Your task to perform on an android device: open app "The Home Depot" Image 0: 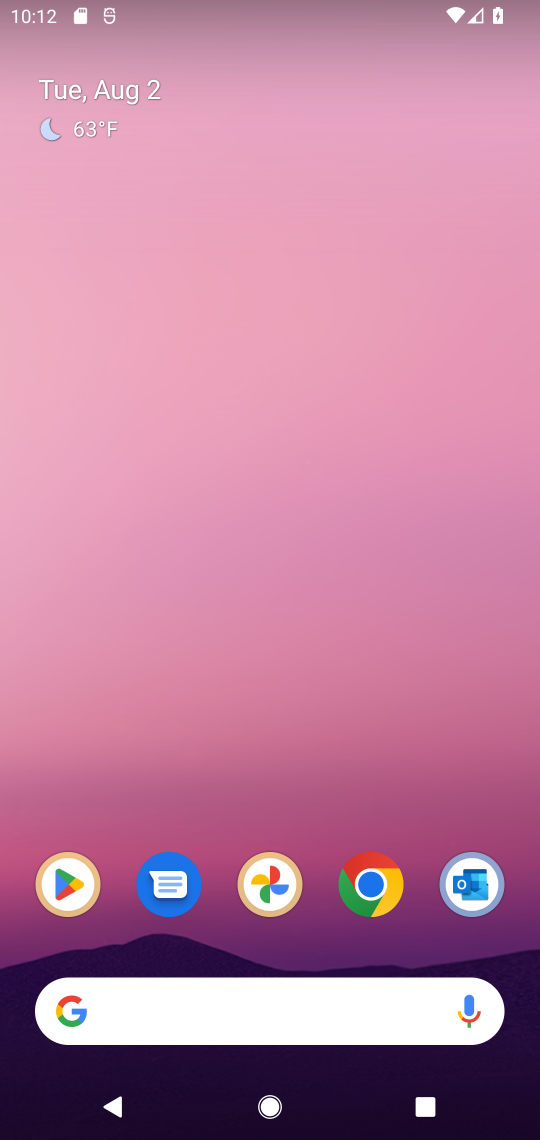
Step 0: click (79, 889)
Your task to perform on an android device: open app "The Home Depot" Image 1: 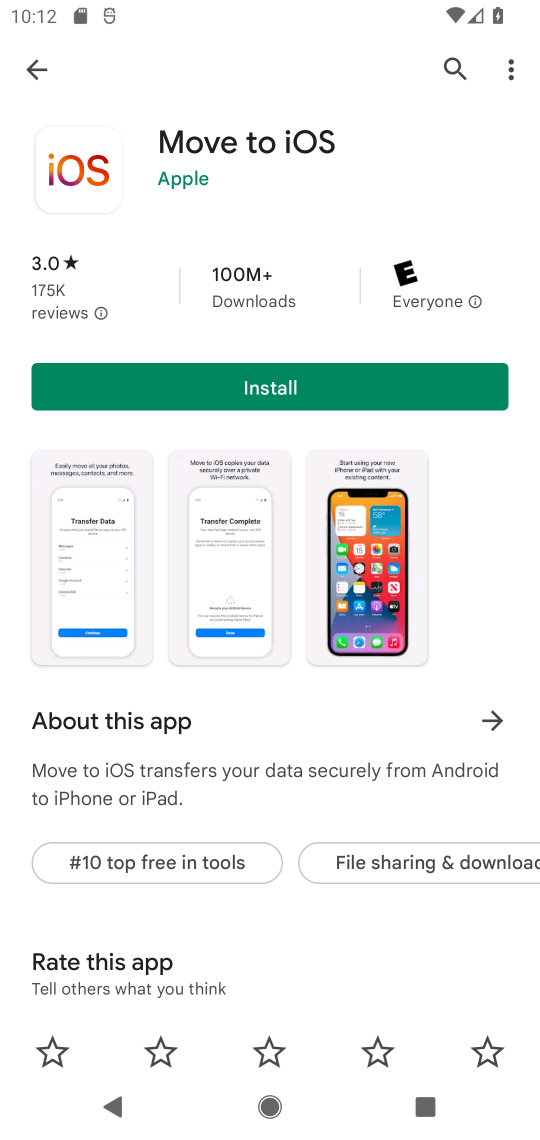
Step 1: click (30, 76)
Your task to perform on an android device: open app "The Home Depot" Image 2: 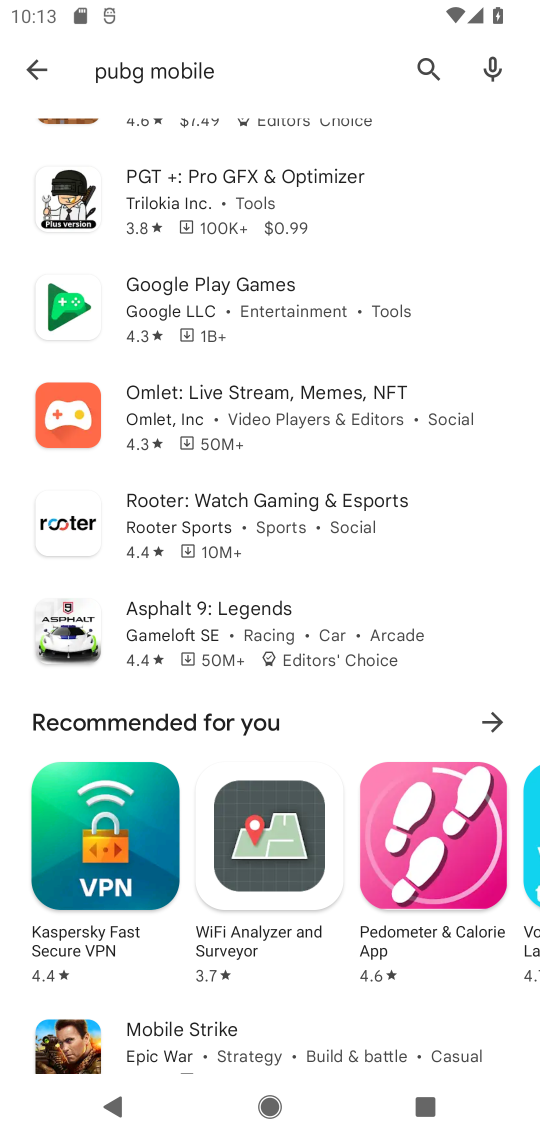
Step 2: click (172, 71)
Your task to perform on an android device: open app "The Home Depot" Image 3: 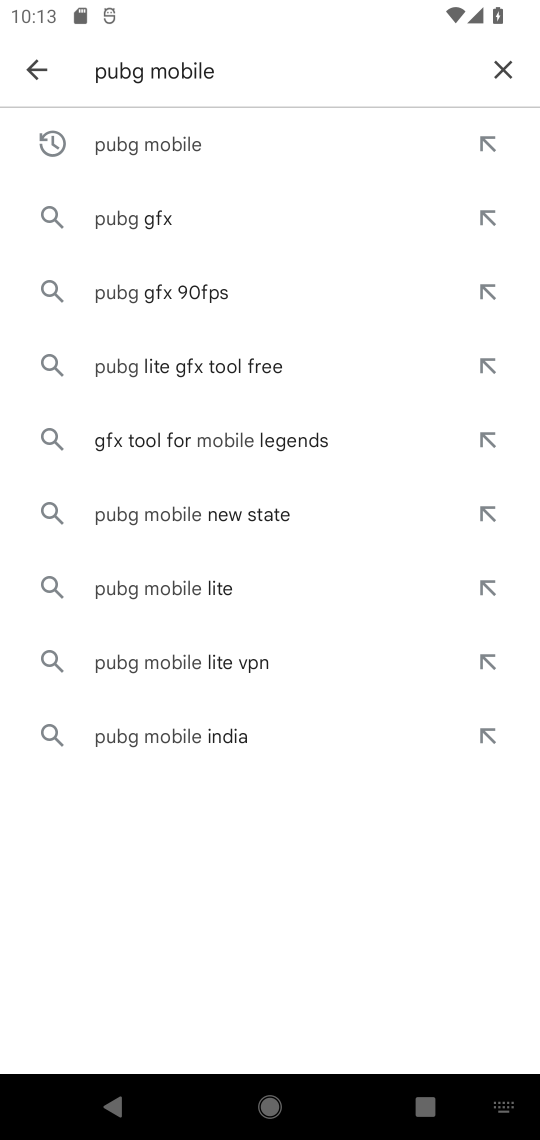
Step 3: click (514, 70)
Your task to perform on an android device: open app "The Home Depot" Image 4: 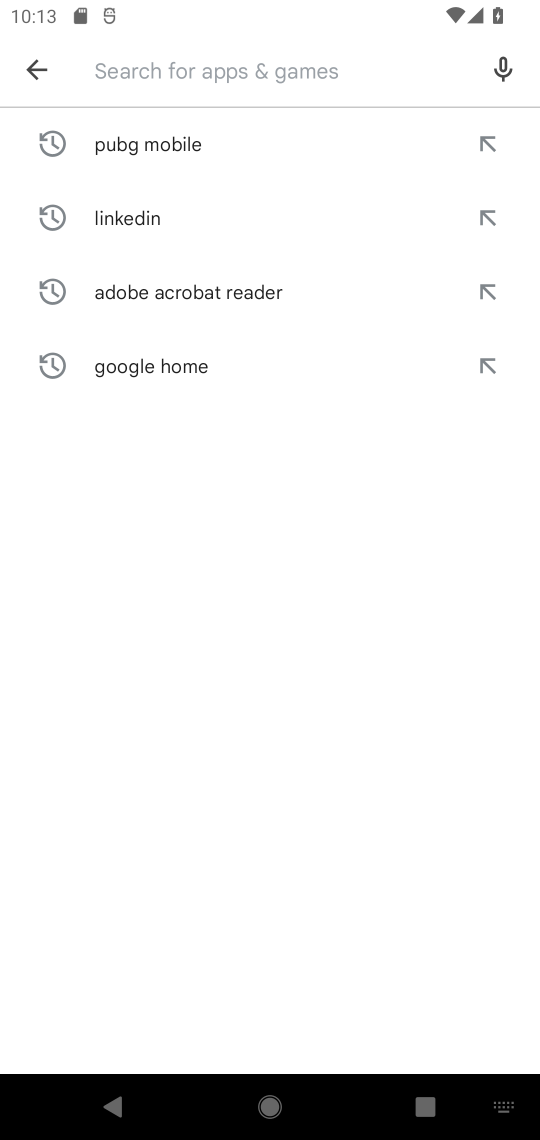
Step 4: type "the home depot"
Your task to perform on an android device: open app "The Home Depot" Image 5: 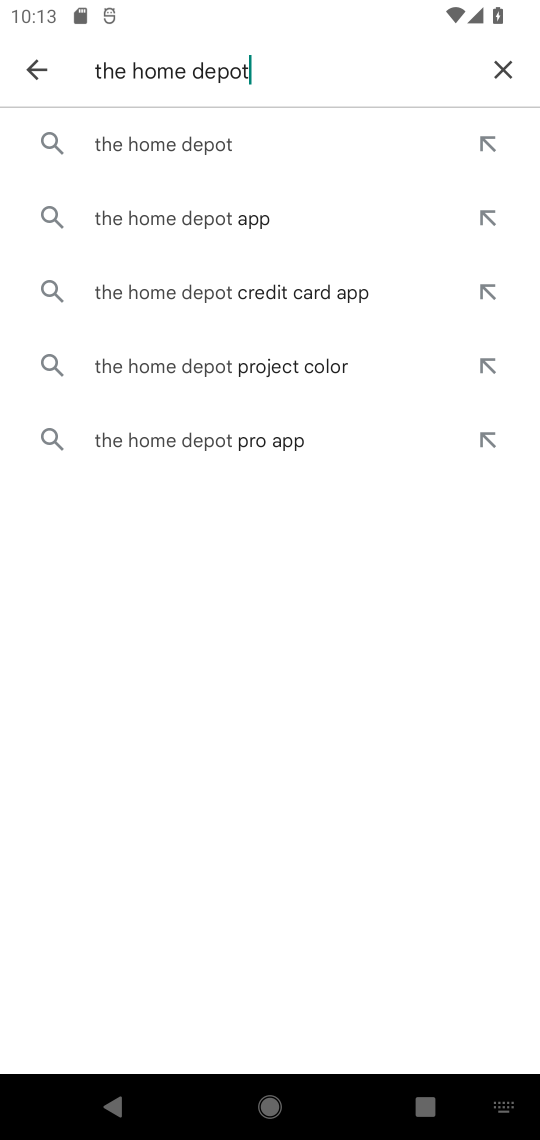
Step 5: click (197, 152)
Your task to perform on an android device: open app "The Home Depot" Image 6: 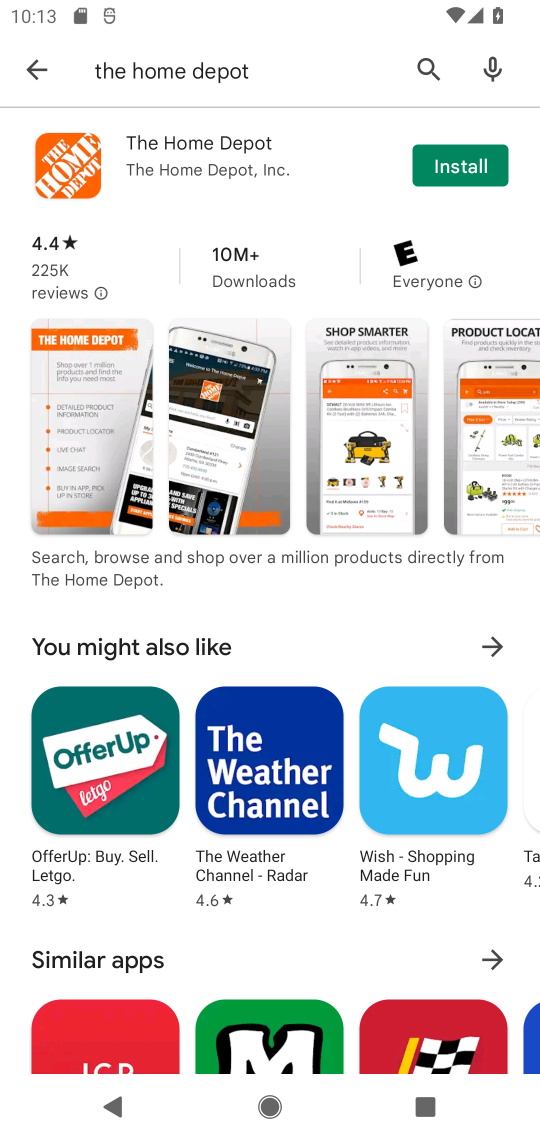
Step 6: task complete